Your task to perform on an android device: uninstall "Google Chat" Image 0: 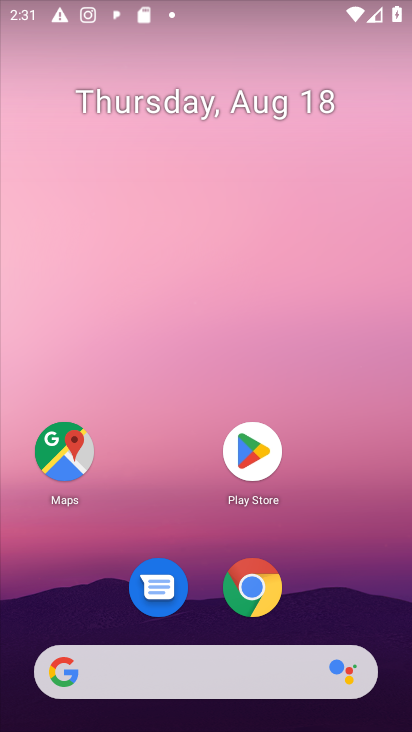
Step 0: press home button
Your task to perform on an android device: uninstall "Google Chat" Image 1: 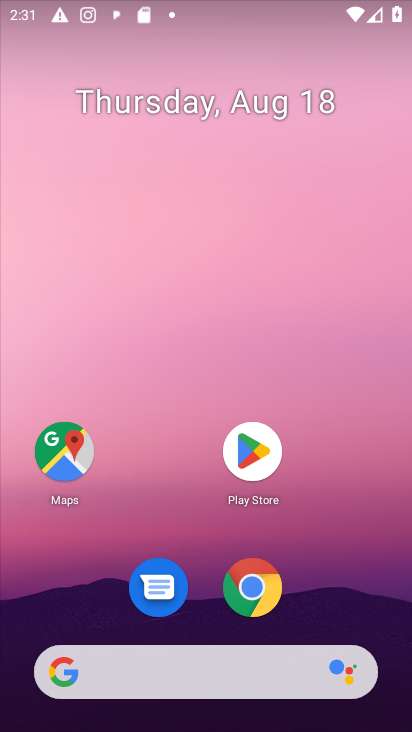
Step 1: click (257, 450)
Your task to perform on an android device: uninstall "Google Chat" Image 2: 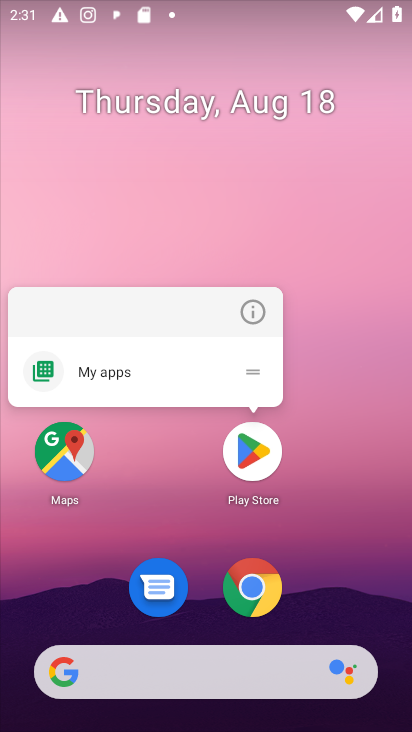
Step 2: click (257, 451)
Your task to perform on an android device: uninstall "Google Chat" Image 3: 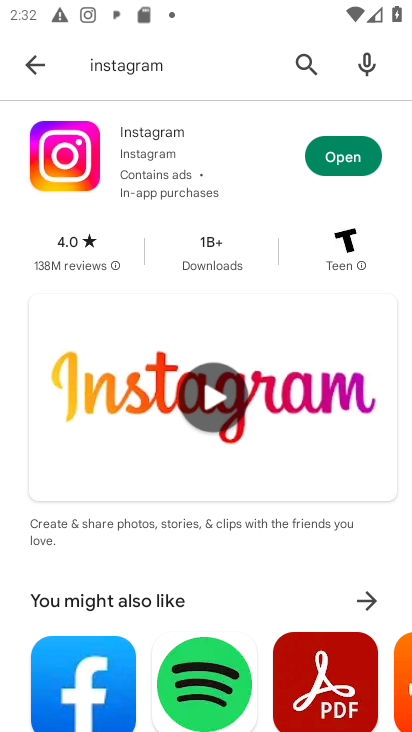
Step 3: click (299, 61)
Your task to perform on an android device: uninstall "Google Chat" Image 4: 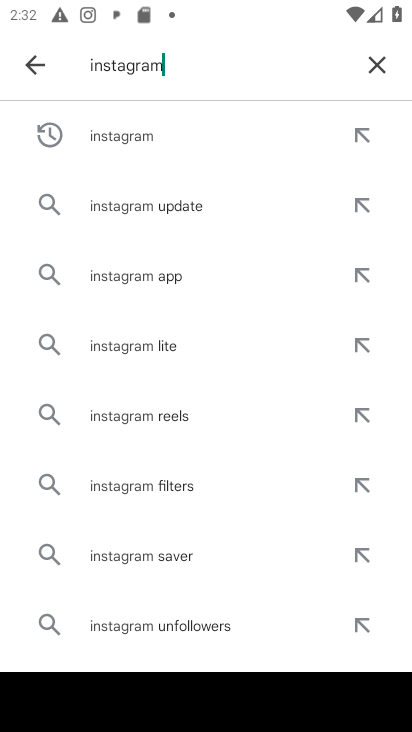
Step 4: click (375, 63)
Your task to perform on an android device: uninstall "Google Chat" Image 5: 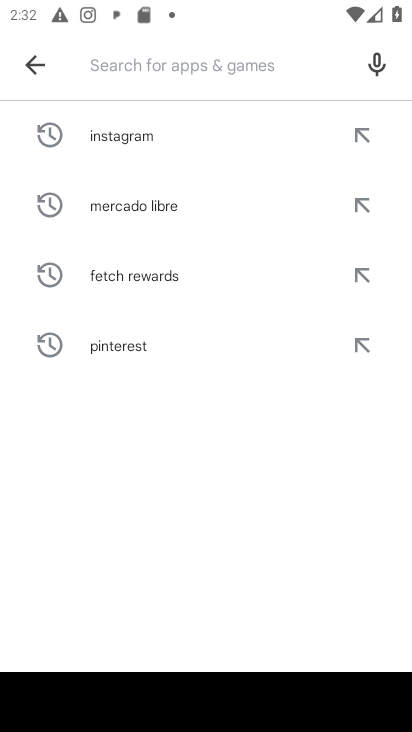
Step 5: type "Google Chat"
Your task to perform on an android device: uninstall "Google Chat" Image 6: 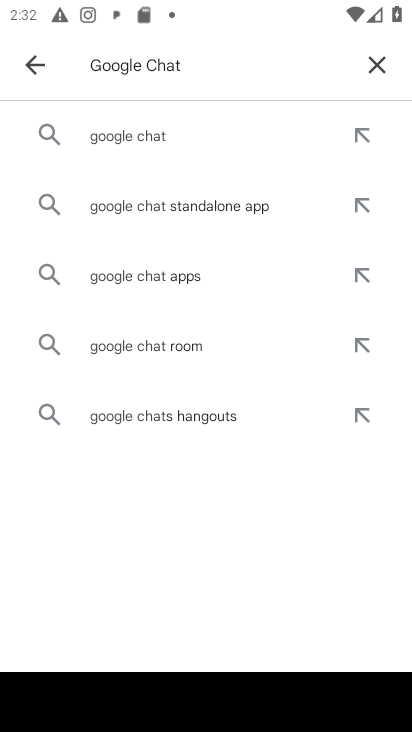
Step 6: click (119, 136)
Your task to perform on an android device: uninstall "Google Chat" Image 7: 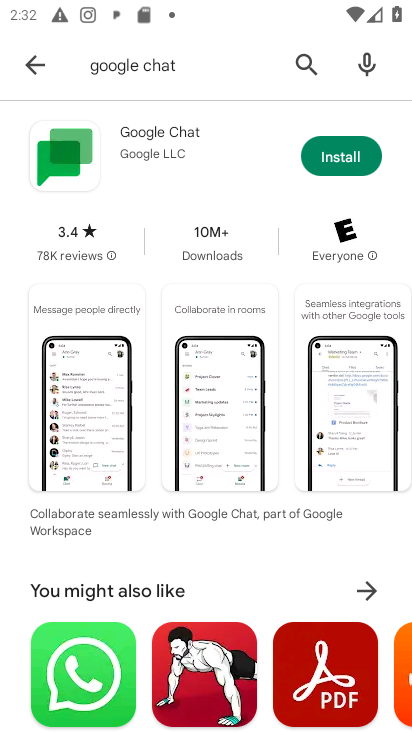
Step 7: task complete